Your task to perform on an android device: Go to notification settings Image 0: 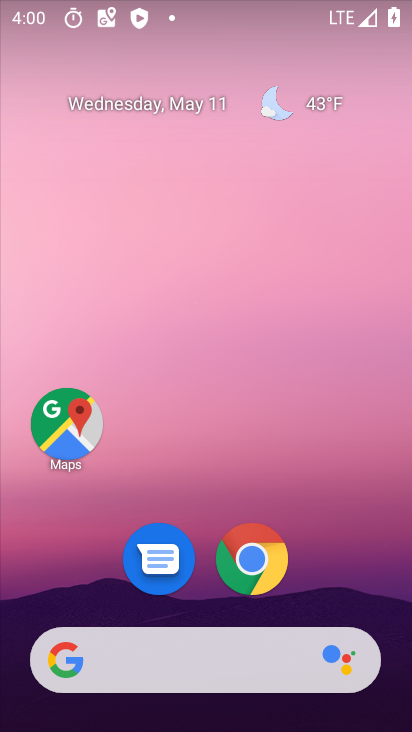
Step 0: drag from (343, 520) to (242, 46)
Your task to perform on an android device: Go to notification settings Image 1: 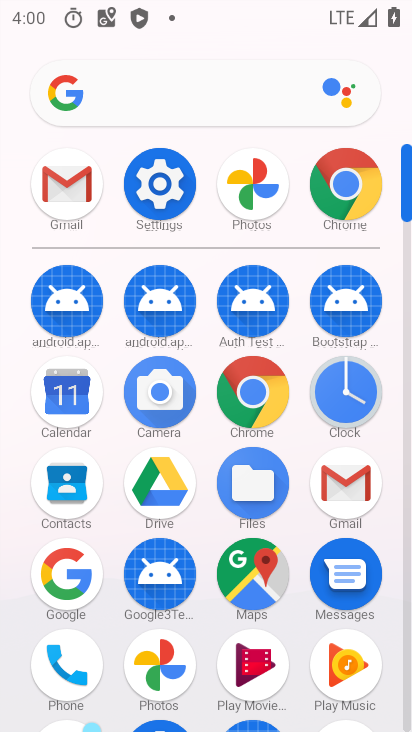
Step 1: click (154, 192)
Your task to perform on an android device: Go to notification settings Image 2: 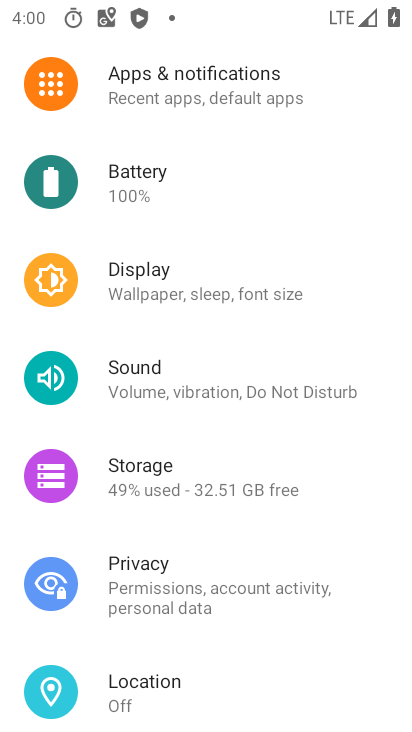
Step 2: click (228, 97)
Your task to perform on an android device: Go to notification settings Image 3: 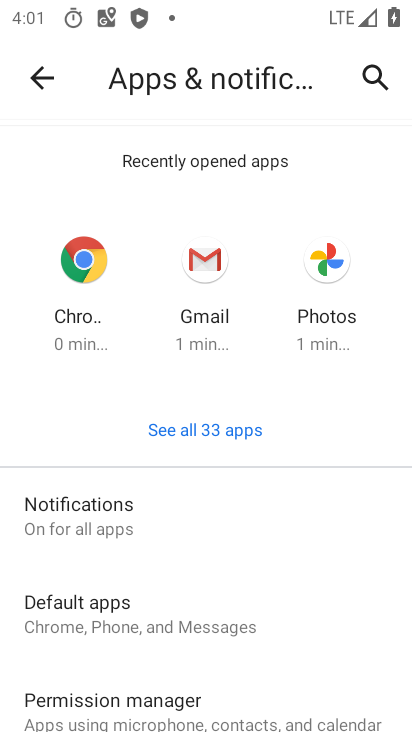
Step 3: task complete